Your task to perform on an android device: What's on my calendar tomorrow? Image 0: 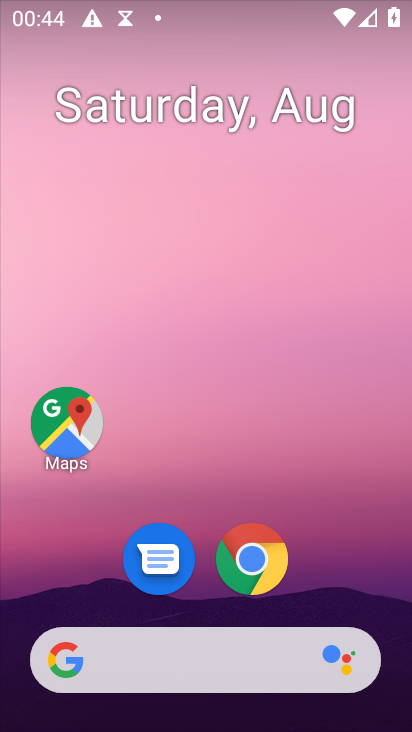
Step 0: drag from (370, 612) to (323, 137)
Your task to perform on an android device: What's on my calendar tomorrow? Image 1: 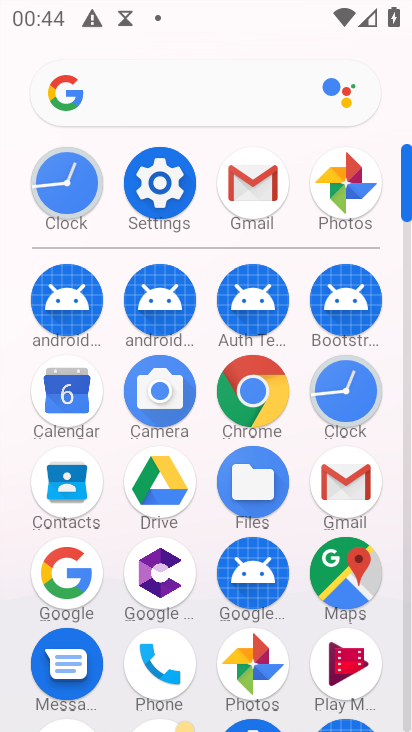
Step 1: click (75, 412)
Your task to perform on an android device: What's on my calendar tomorrow? Image 2: 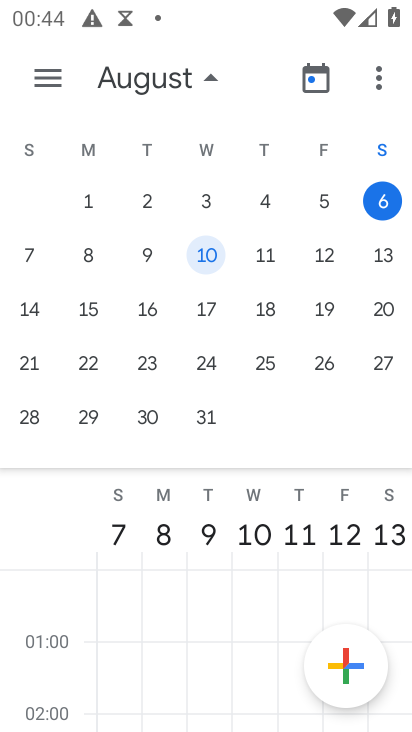
Step 2: click (47, 77)
Your task to perform on an android device: What's on my calendar tomorrow? Image 3: 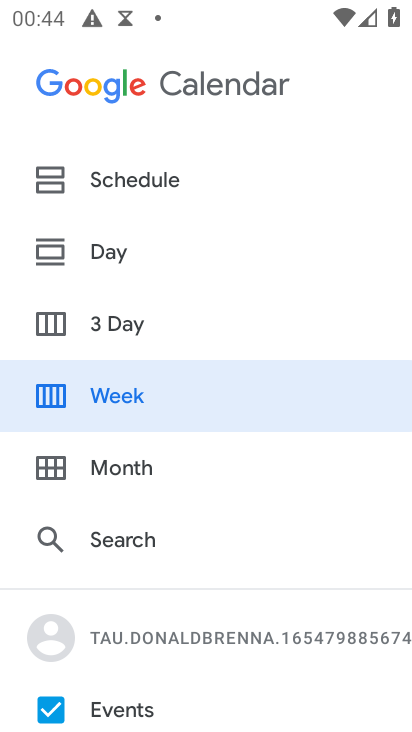
Step 3: click (143, 254)
Your task to perform on an android device: What's on my calendar tomorrow? Image 4: 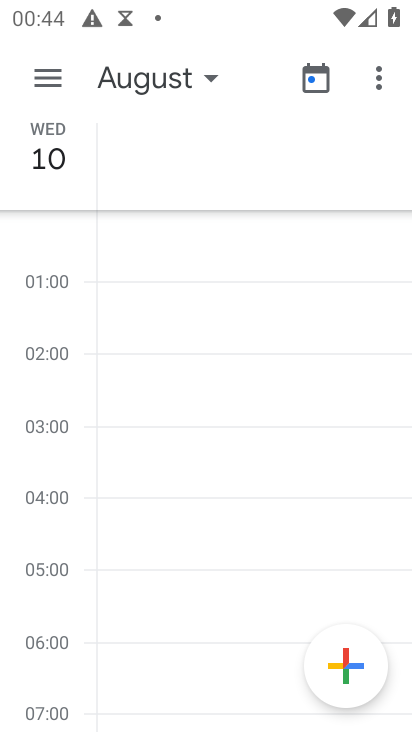
Step 4: drag from (139, 294) to (353, 391)
Your task to perform on an android device: What's on my calendar tomorrow? Image 5: 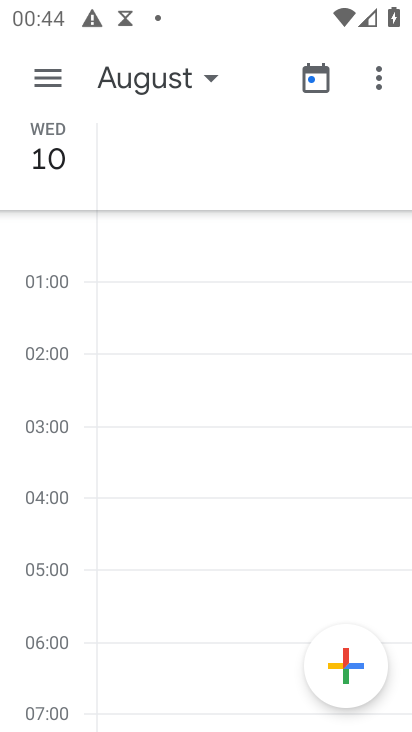
Step 5: drag from (13, 345) to (363, 474)
Your task to perform on an android device: What's on my calendar tomorrow? Image 6: 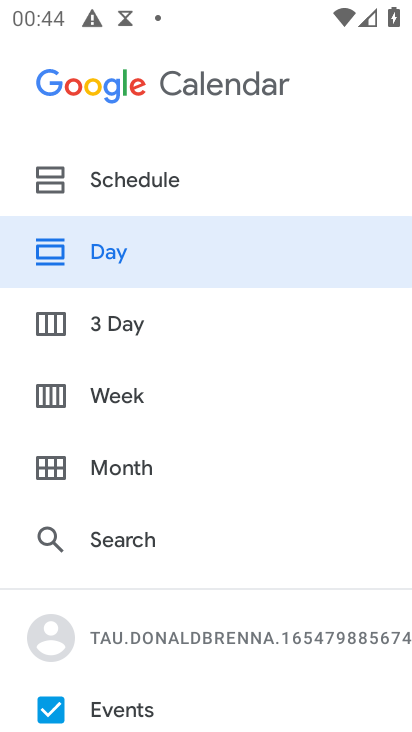
Step 6: click (154, 245)
Your task to perform on an android device: What's on my calendar tomorrow? Image 7: 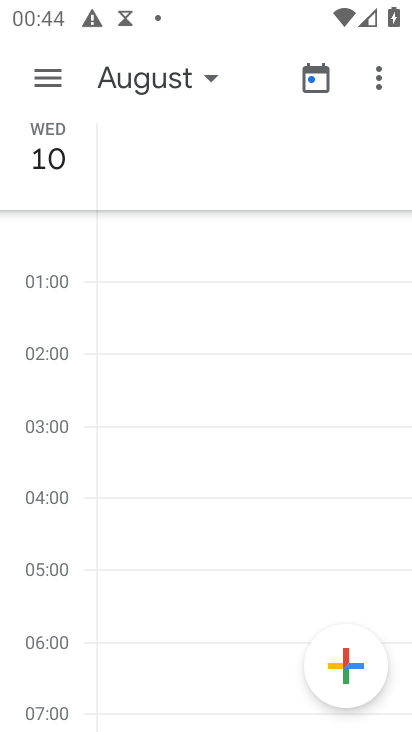
Step 7: click (155, 65)
Your task to perform on an android device: What's on my calendar tomorrow? Image 8: 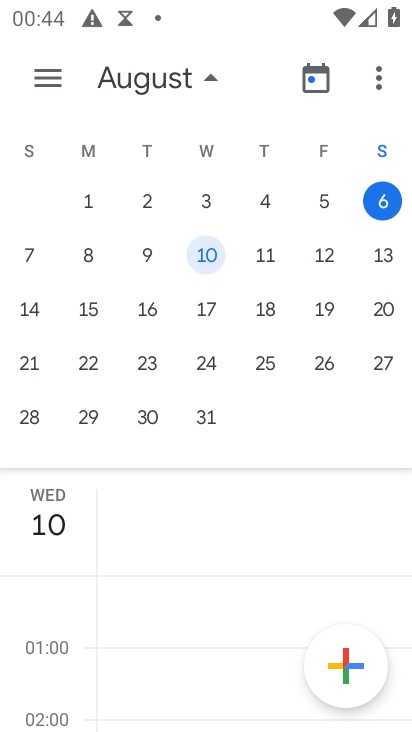
Step 8: click (24, 260)
Your task to perform on an android device: What's on my calendar tomorrow? Image 9: 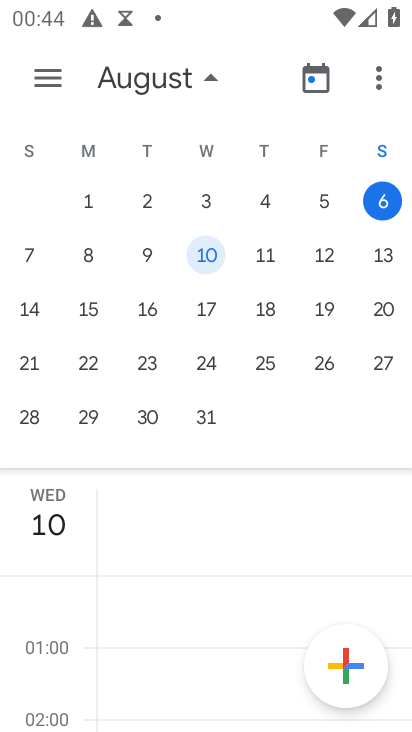
Step 9: click (33, 253)
Your task to perform on an android device: What's on my calendar tomorrow? Image 10: 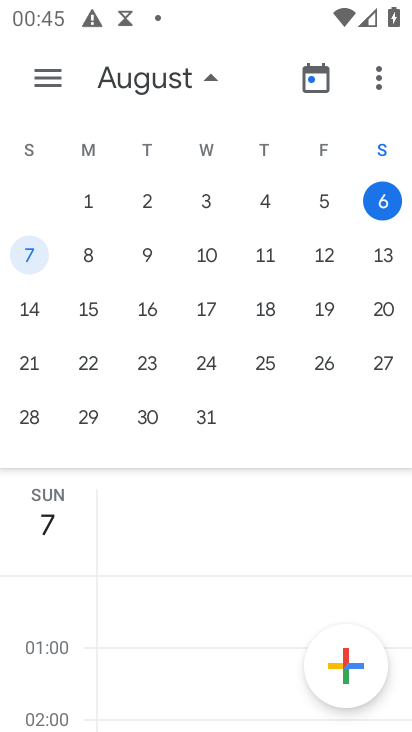
Step 10: click (165, 85)
Your task to perform on an android device: What's on my calendar tomorrow? Image 11: 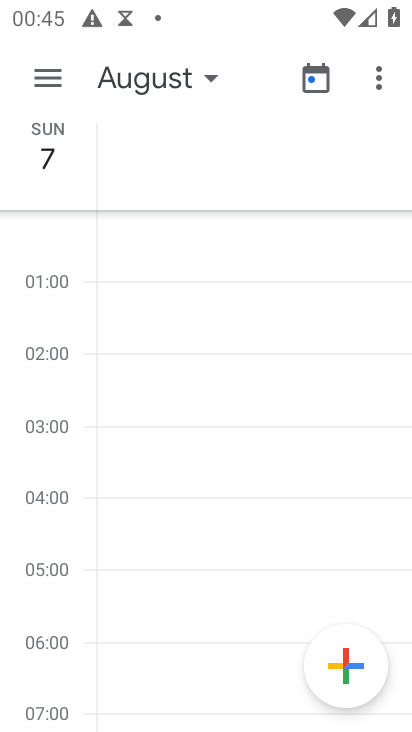
Step 11: task complete